Your task to perform on an android device: turn off data saver in the chrome app Image 0: 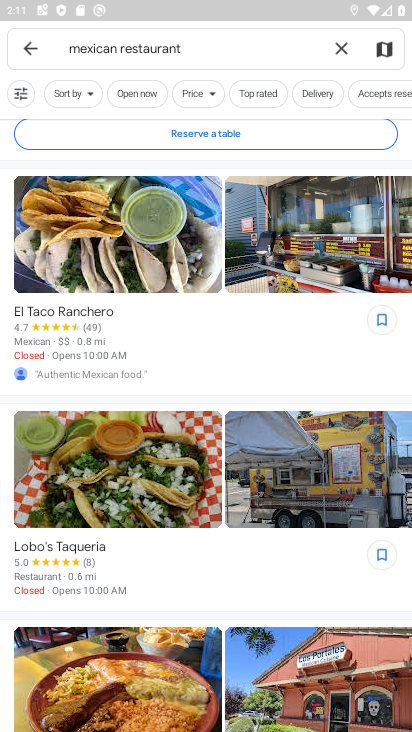
Step 0: press home button
Your task to perform on an android device: turn off data saver in the chrome app Image 1: 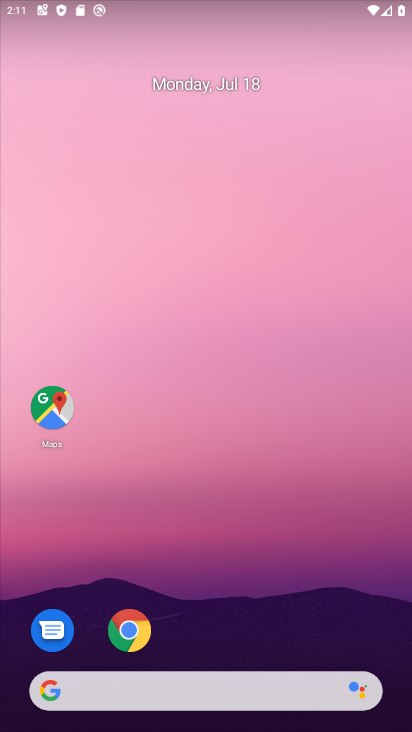
Step 1: click (133, 626)
Your task to perform on an android device: turn off data saver in the chrome app Image 2: 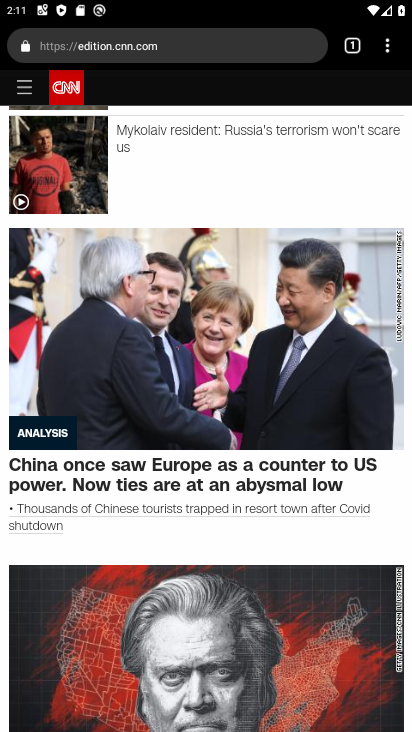
Step 2: click (384, 52)
Your task to perform on an android device: turn off data saver in the chrome app Image 3: 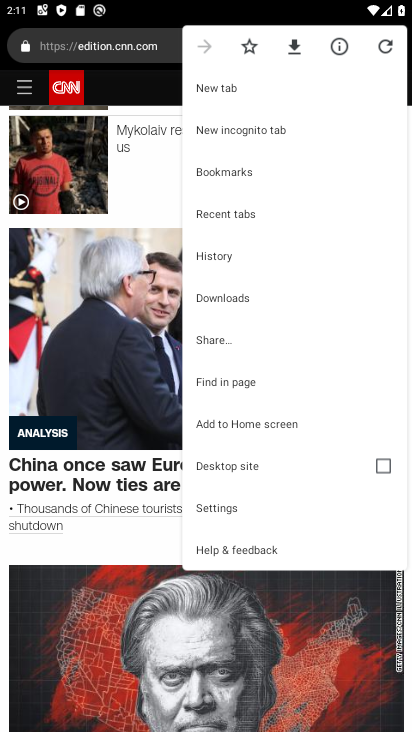
Step 3: click (221, 510)
Your task to perform on an android device: turn off data saver in the chrome app Image 4: 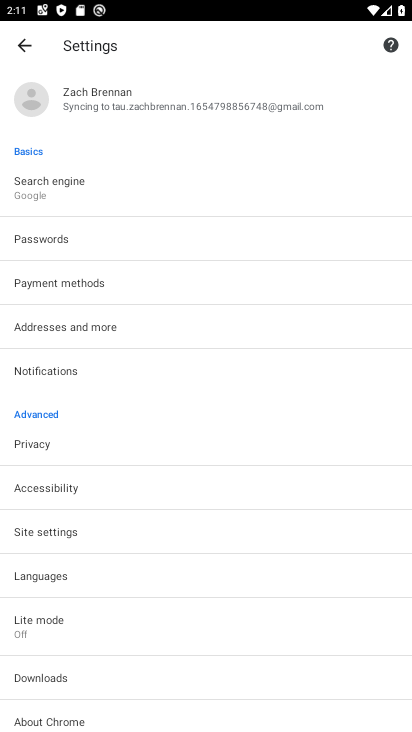
Step 4: click (42, 625)
Your task to perform on an android device: turn off data saver in the chrome app Image 5: 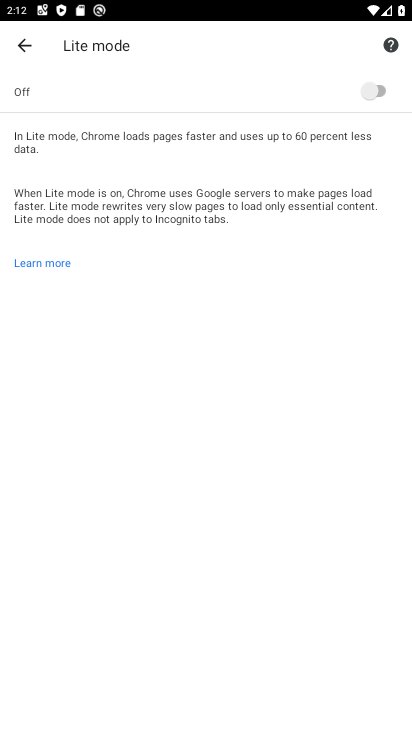
Step 5: task complete